Your task to perform on an android device: Open the calendar app, open the side menu, and click the "Day" option Image 0: 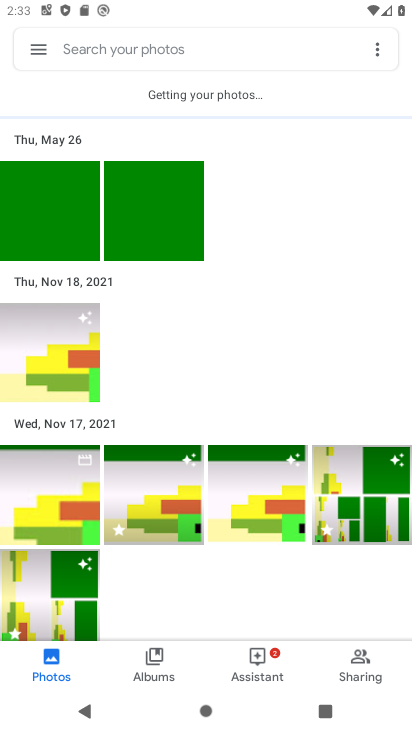
Step 0: press back button
Your task to perform on an android device: Open the calendar app, open the side menu, and click the "Day" option Image 1: 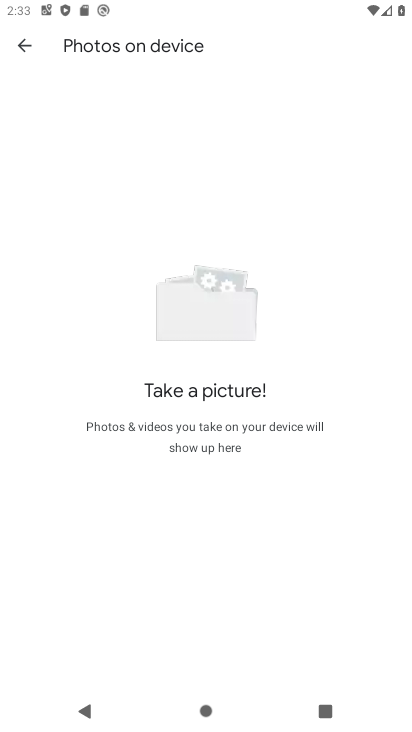
Step 1: press back button
Your task to perform on an android device: Open the calendar app, open the side menu, and click the "Day" option Image 2: 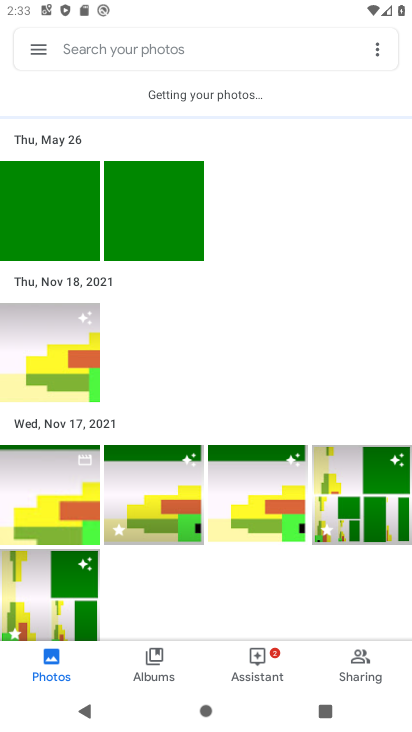
Step 2: press back button
Your task to perform on an android device: Open the calendar app, open the side menu, and click the "Day" option Image 3: 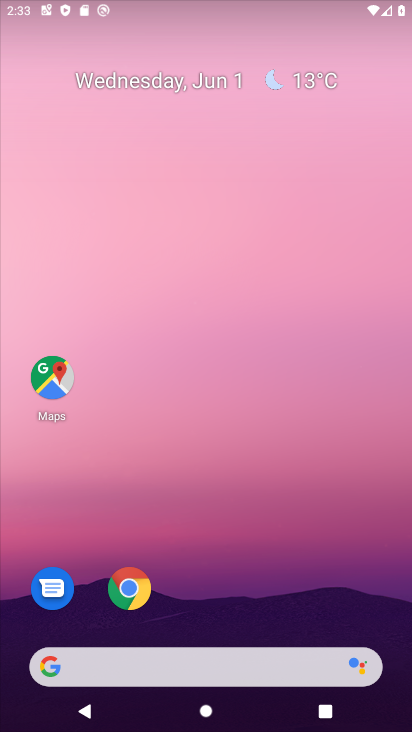
Step 3: drag from (280, 565) to (319, 69)
Your task to perform on an android device: Open the calendar app, open the side menu, and click the "Day" option Image 4: 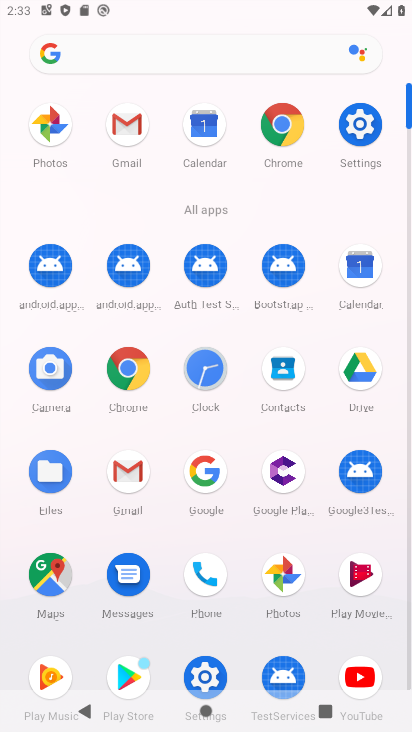
Step 4: click (358, 273)
Your task to perform on an android device: Open the calendar app, open the side menu, and click the "Day" option Image 5: 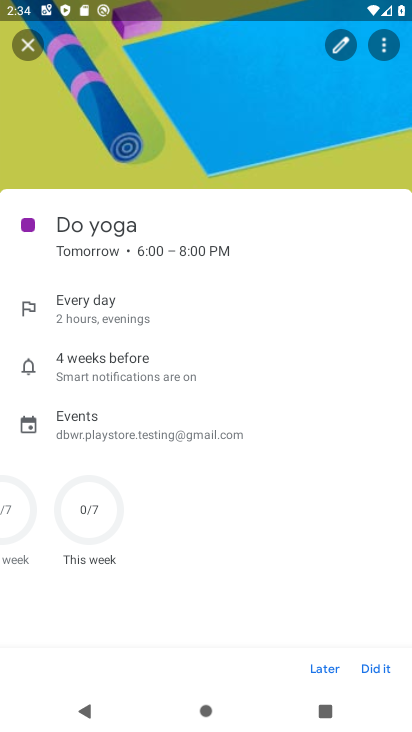
Step 5: click (325, 672)
Your task to perform on an android device: Open the calendar app, open the side menu, and click the "Day" option Image 6: 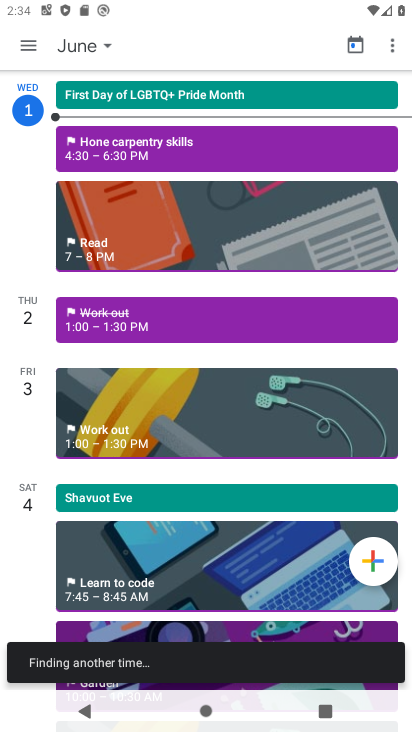
Step 6: click (29, 40)
Your task to perform on an android device: Open the calendar app, open the side menu, and click the "Day" option Image 7: 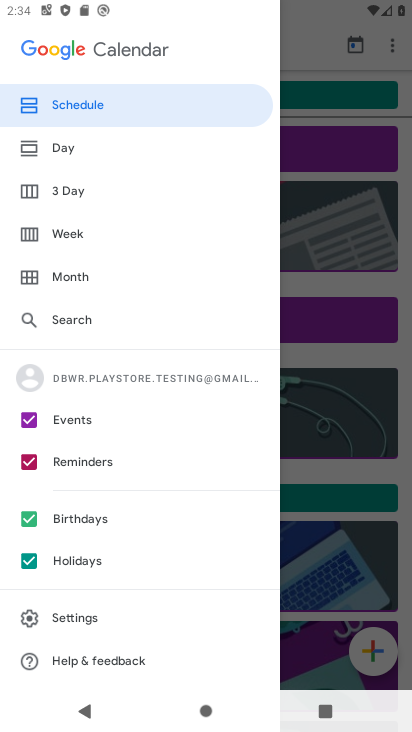
Step 7: click (71, 146)
Your task to perform on an android device: Open the calendar app, open the side menu, and click the "Day" option Image 8: 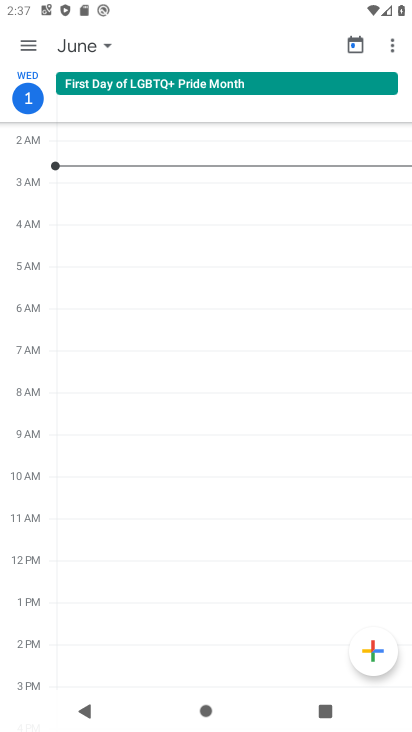
Step 8: click (32, 47)
Your task to perform on an android device: Open the calendar app, open the side menu, and click the "Day" option Image 9: 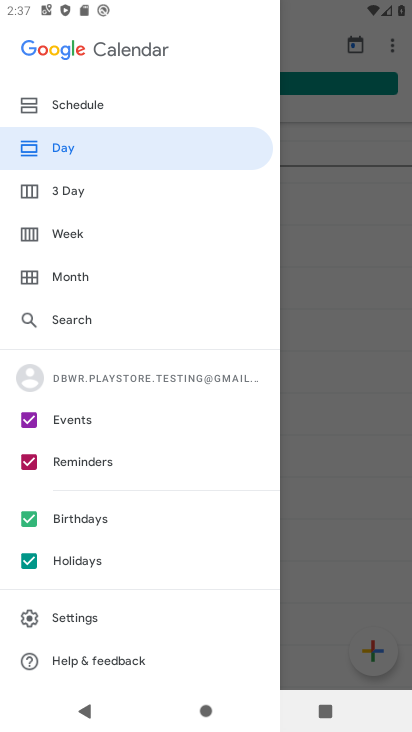
Step 9: click (73, 163)
Your task to perform on an android device: Open the calendar app, open the side menu, and click the "Day" option Image 10: 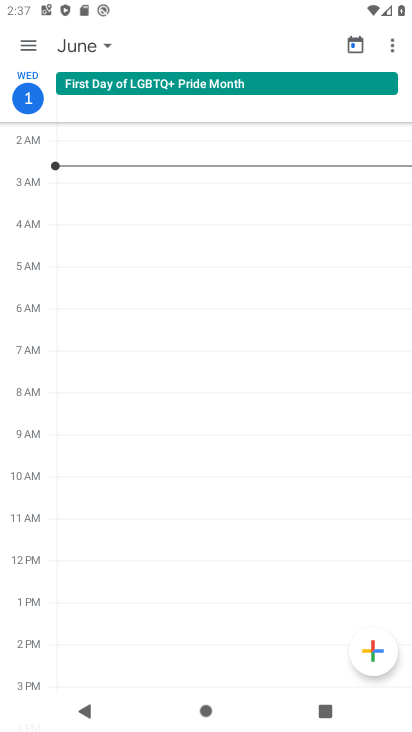
Step 10: task complete